Your task to perform on an android device: find snoozed emails in the gmail app Image 0: 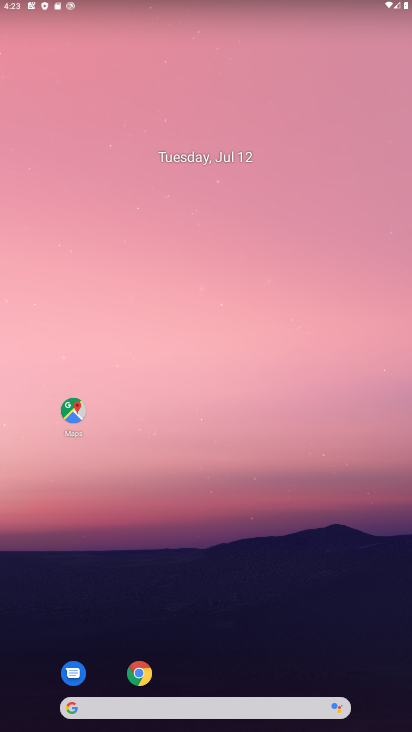
Step 0: drag from (171, 689) to (308, 151)
Your task to perform on an android device: find snoozed emails in the gmail app Image 1: 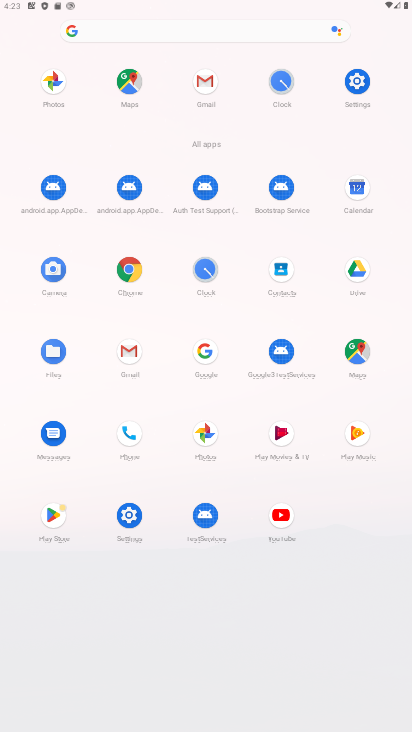
Step 1: click (129, 361)
Your task to perform on an android device: find snoozed emails in the gmail app Image 2: 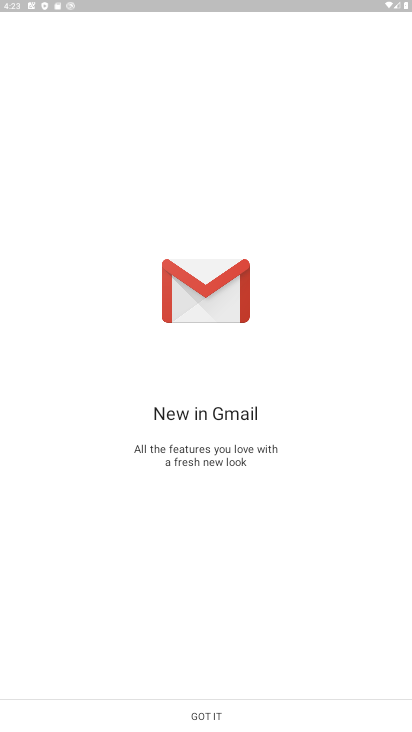
Step 2: click (215, 730)
Your task to perform on an android device: find snoozed emails in the gmail app Image 3: 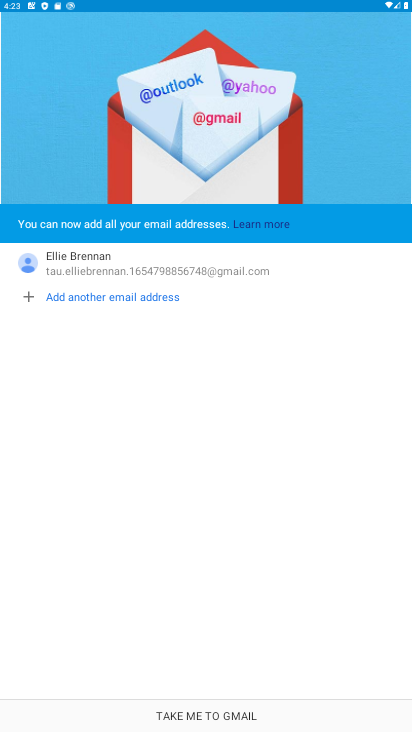
Step 3: click (220, 725)
Your task to perform on an android device: find snoozed emails in the gmail app Image 4: 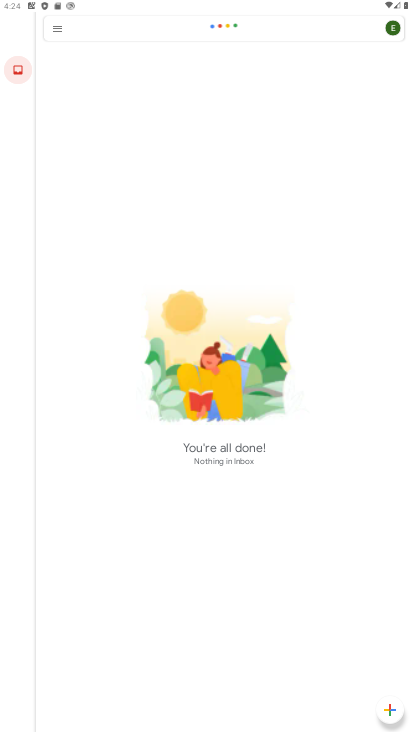
Step 4: click (54, 26)
Your task to perform on an android device: find snoozed emails in the gmail app Image 5: 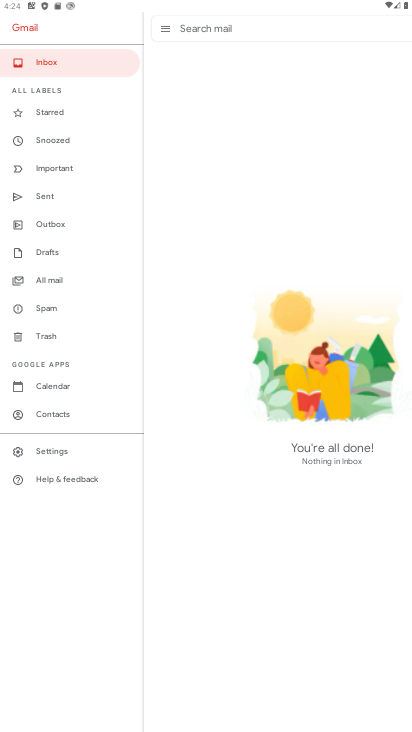
Step 5: click (61, 138)
Your task to perform on an android device: find snoozed emails in the gmail app Image 6: 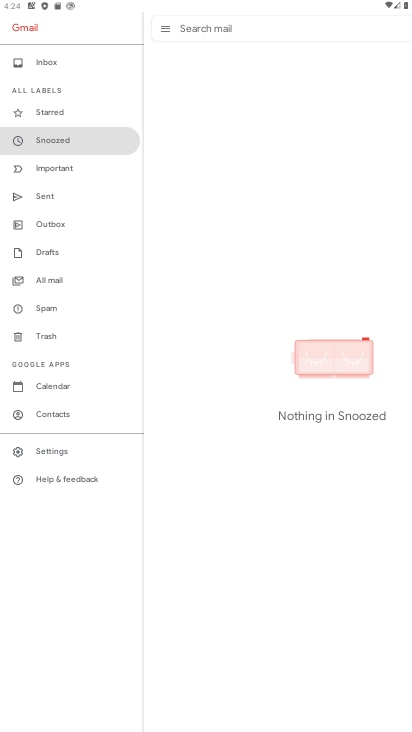
Step 6: task complete